Your task to perform on an android device: Go to calendar. Show me events next week Image 0: 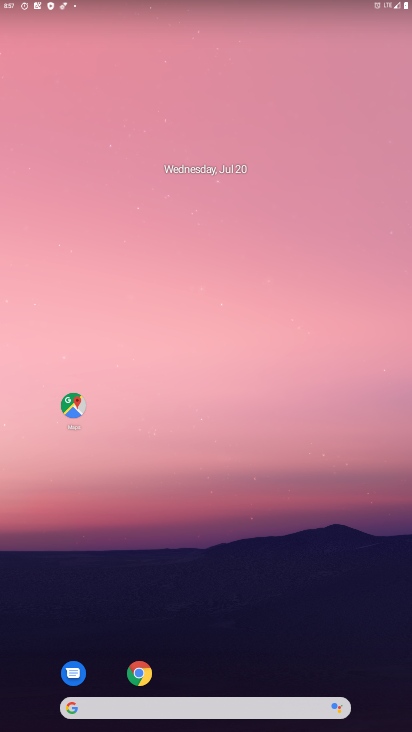
Step 0: drag from (192, 667) to (206, 71)
Your task to perform on an android device: Go to calendar. Show me events next week Image 1: 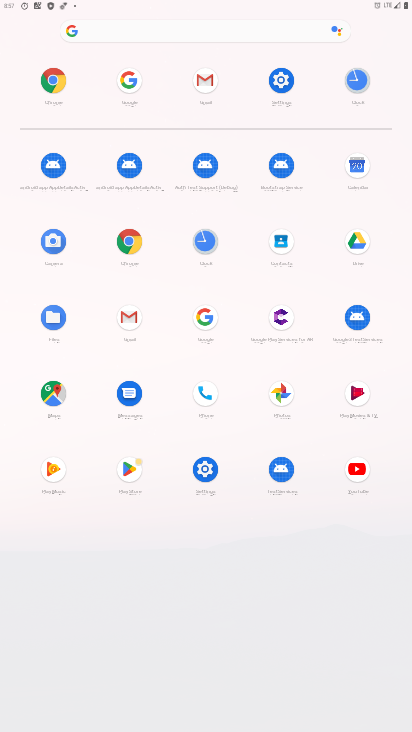
Step 1: click (357, 165)
Your task to perform on an android device: Go to calendar. Show me events next week Image 2: 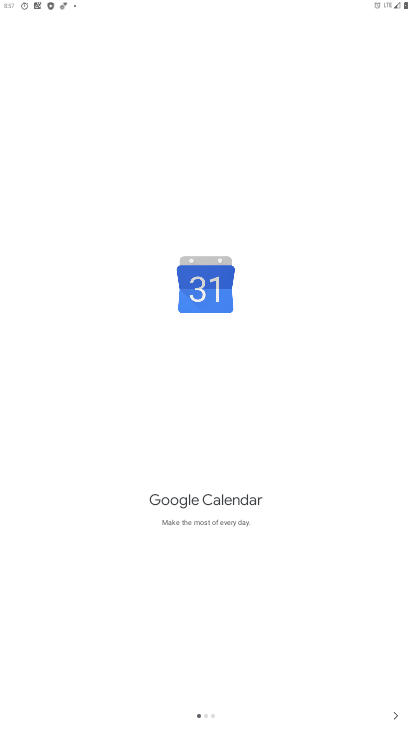
Step 2: click (390, 713)
Your task to perform on an android device: Go to calendar. Show me events next week Image 3: 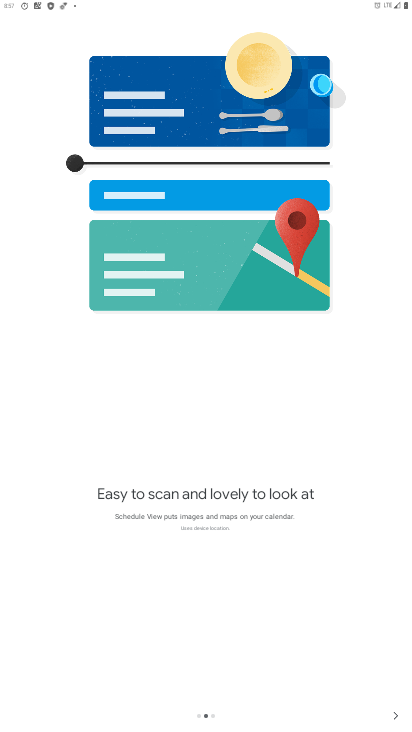
Step 3: click (390, 713)
Your task to perform on an android device: Go to calendar. Show me events next week Image 4: 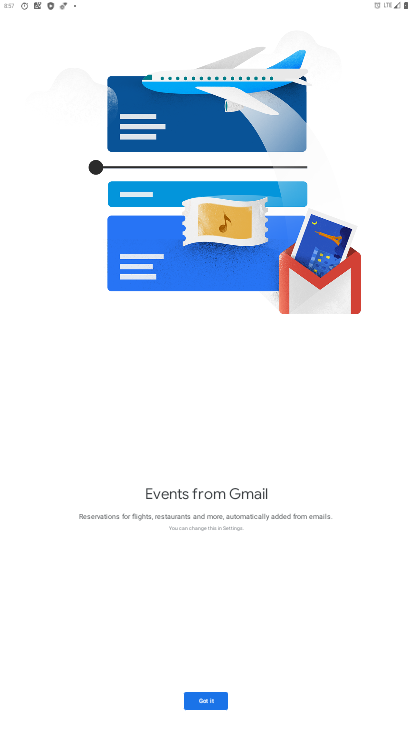
Step 4: click (207, 706)
Your task to perform on an android device: Go to calendar. Show me events next week Image 5: 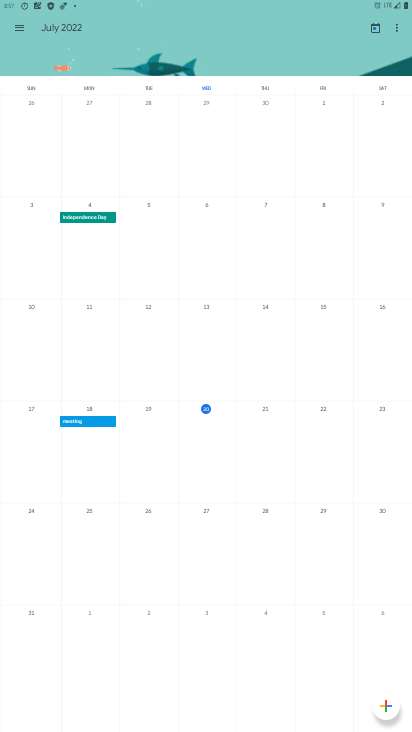
Step 5: click (317, 419)
Your task to perform on an android device: Go to calendar. Show me events next week Image 6: 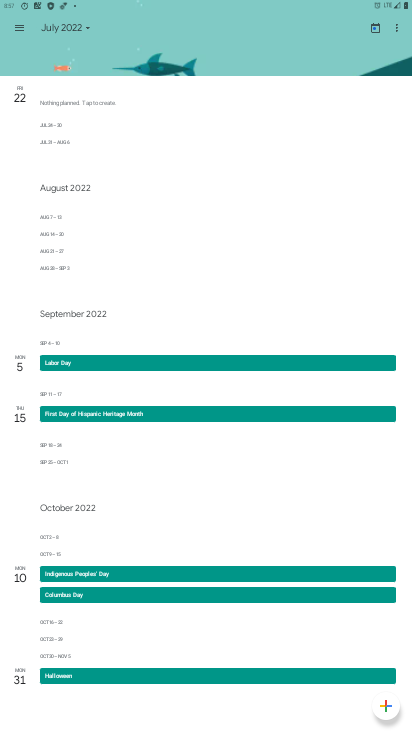
Step 6: task complete